Your task to perform on an android device: turn on data saver in the chrome app Image 0: 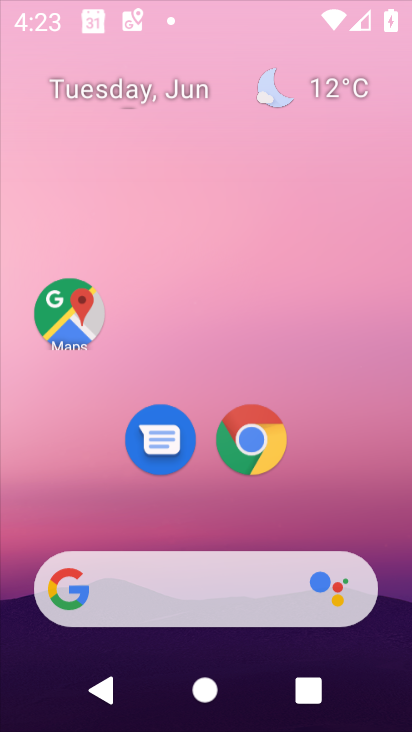
Step 0: click (364, 3)
Your task to perform on an android device: turn on data saver in the chrome app Image 1: 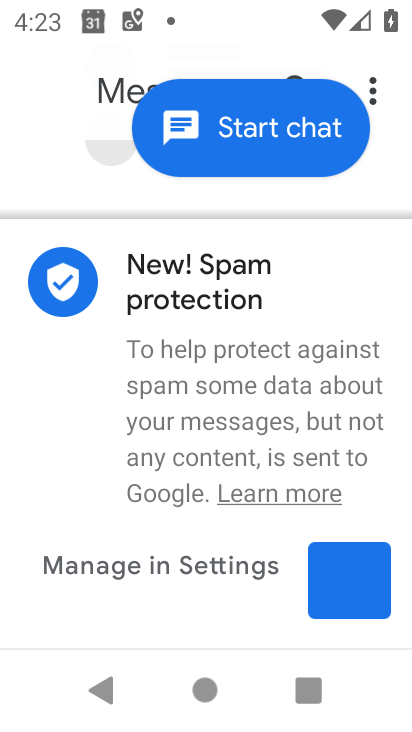
Step 1: drag from (235, 167) to (261, 563)
Your task to perform on an android device: turn on data saver in the chrome app Image 2: 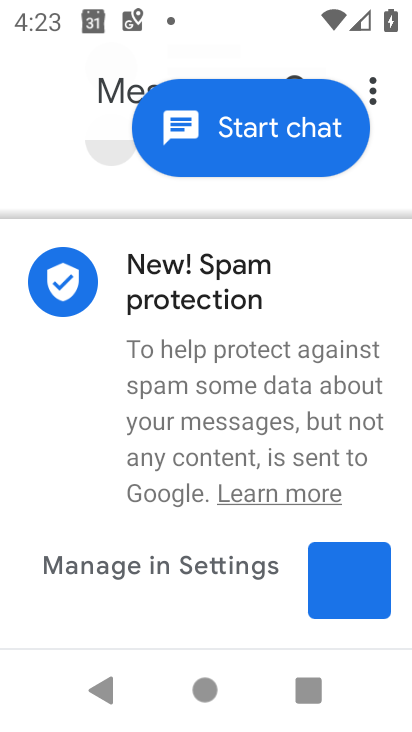
Step 2: drag from (313, 281) to (295, 711)
Your task to perform on an android device: turn on data saver in the chrome app Image 3: 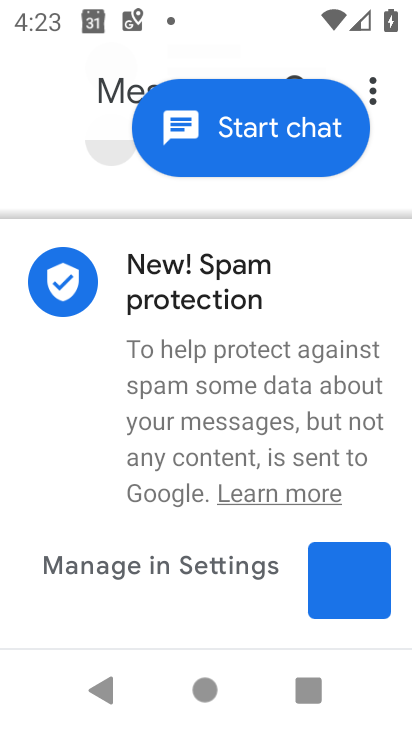
Step 3: drag from (237, 250) to (224, 546)
Your task to perform on an android device: turn on data saver in the chrome app Image 4: 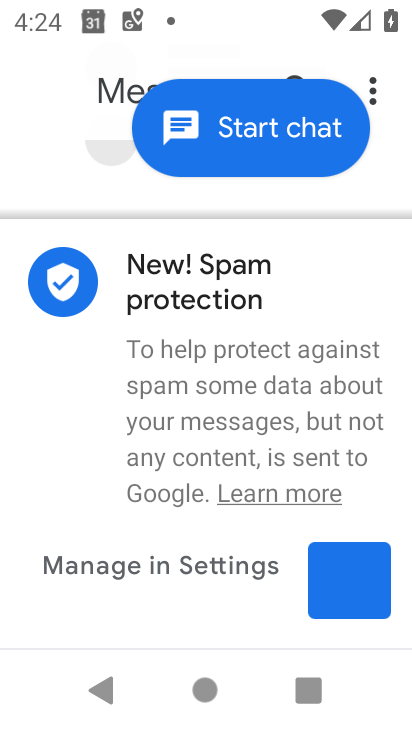
Step 4: drag from (316, 193) to (361, 549)
Your task to perform on an android device: turn on data saver in the chrome app Image 5: 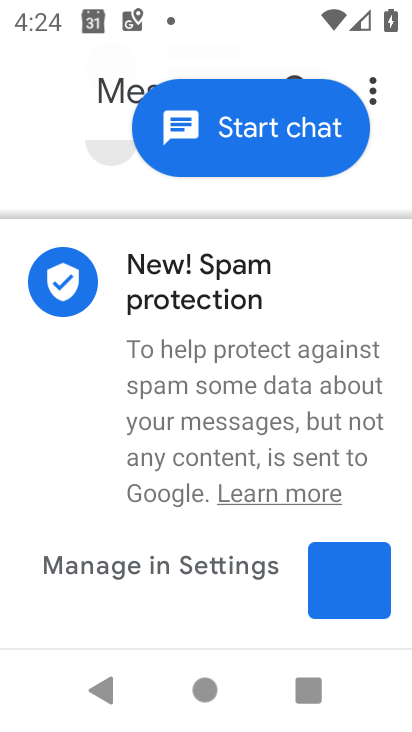
Step 5: press home button
Your task to perform on an android device: turn on data saver in the chrome app Image 6: 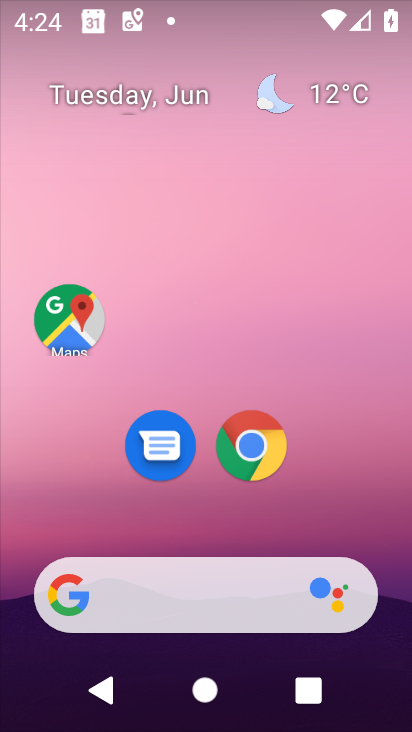
Step 6: drag from (364, 502) to (300, 13)
Your task to perform on an android device: turn on data saver in the chrome app Image 7: 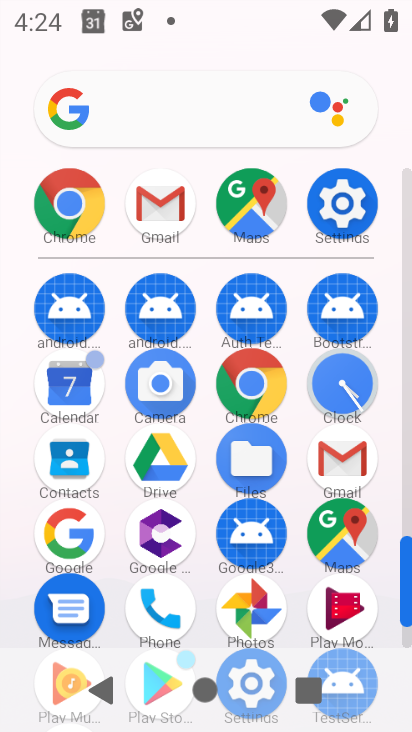
Step 7: click (73, 190)
Your task to perform on an android device: turn on data saver in the chrome app Image 8: 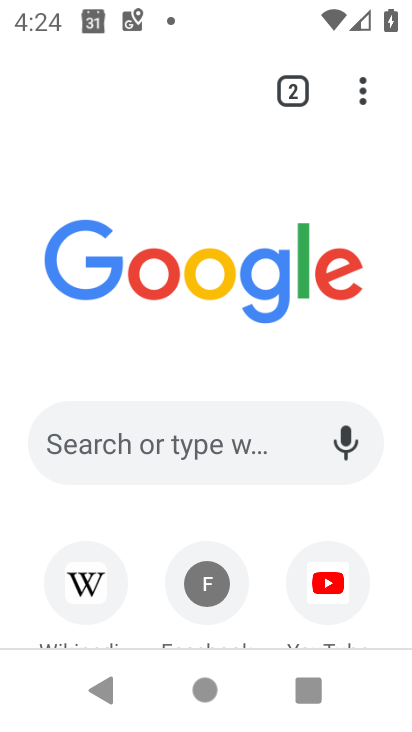
Step 8: drag from (378, 90) to (199, 483)
Your task to perform on an android device: turn on data saver in the chrome app Image 9: 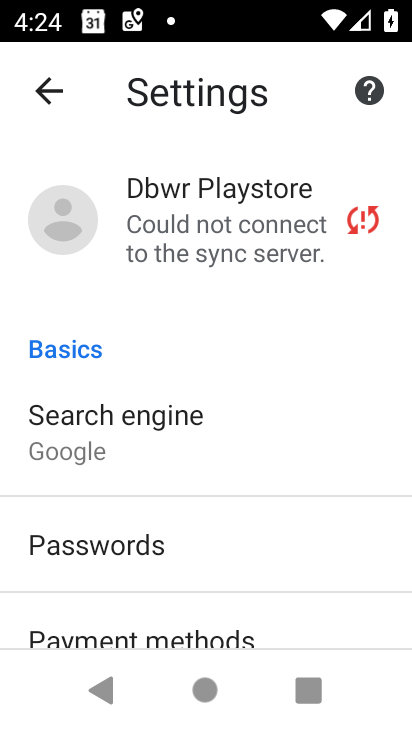
Step 9: drag from (183, 607) to (196, 139)
Your task to perform on an android device: turn on data saver in the chrome app Image 10: 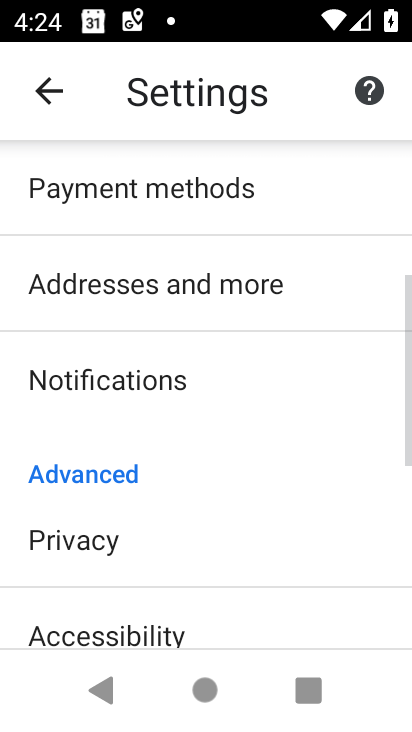
Step 10: drag from (210, 601) to (196, 190)
Your task to perform on an android device: turn on data saver in the chrome app Image 11: 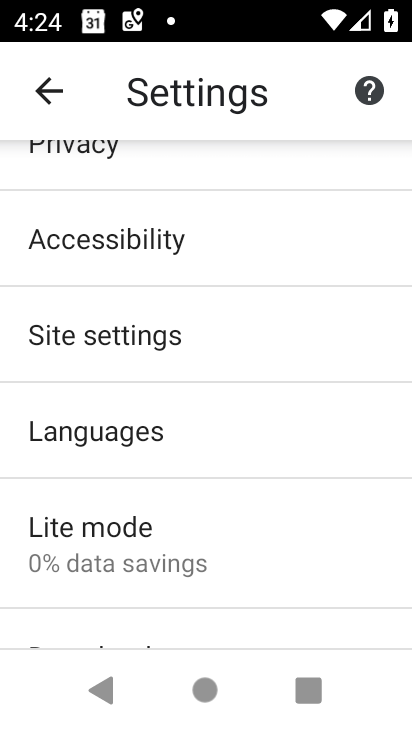
Step 11: drag from (196, 598) to (221, 204)
Your task to perform on an android device: turn on data saver in the chrome app Image 12: 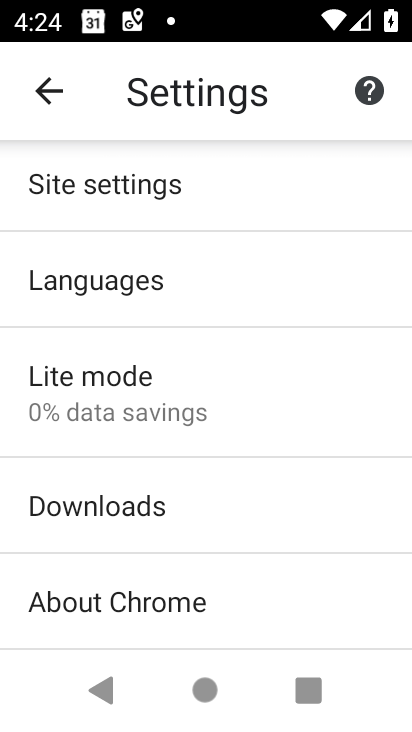
Step 12: drag from (216, 541) to (202, 384)
Your task to perform on an android device: turn on data saver in the chrome app Image 13: 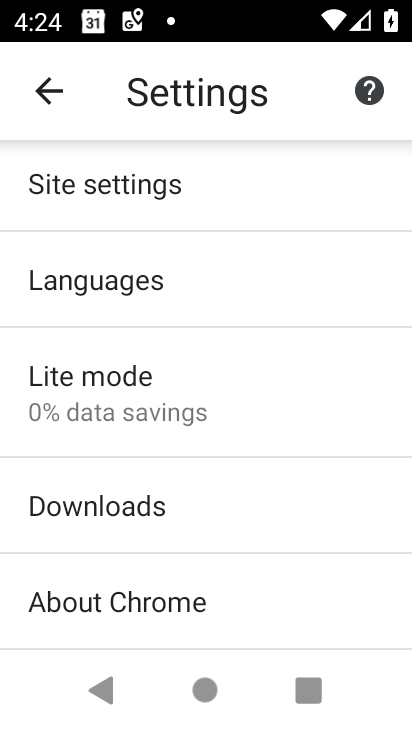
Step 13: click (195, 388)
Your task to perform on an android device: turn on data saver in the chrome app Image 14: 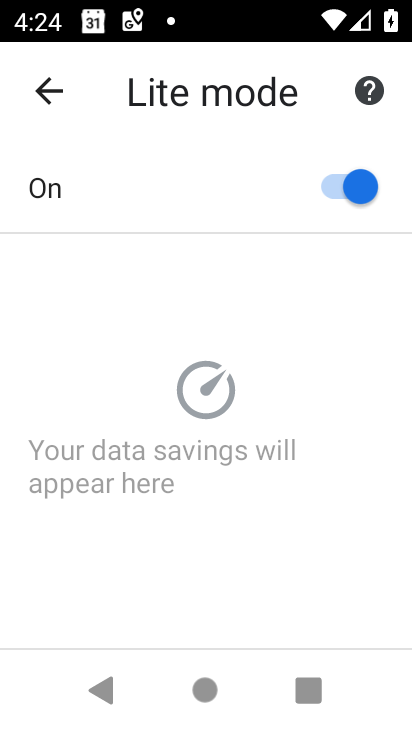
Step 14: task complete